Your task to perform on an android device: turn on javascript in the chrome app Image 0: 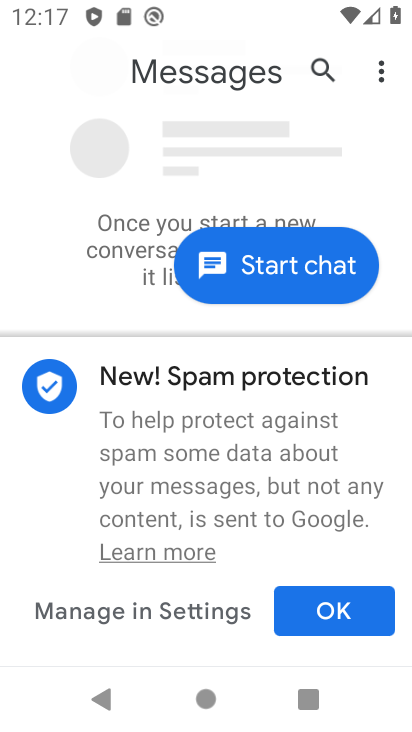
Step 0: press home button
Your task to perform on an android device: turn on javascript in the chrome app Image 1: 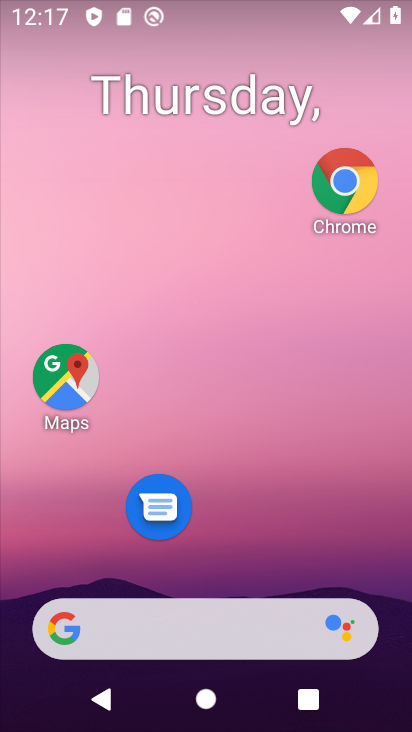
Step 1: click (359, 193)
Your task to perform on an android device: turn on javascript in the chrome app Image 2: 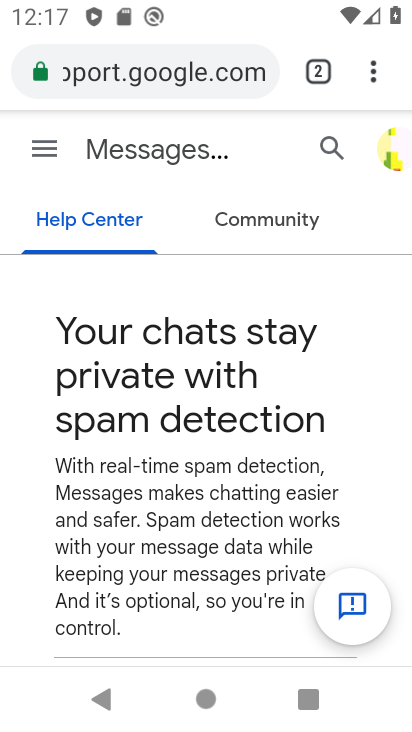
Step 2: click (364, 79)
Your task to perform on an android device: turn on javascript in the chrome app Image 3: 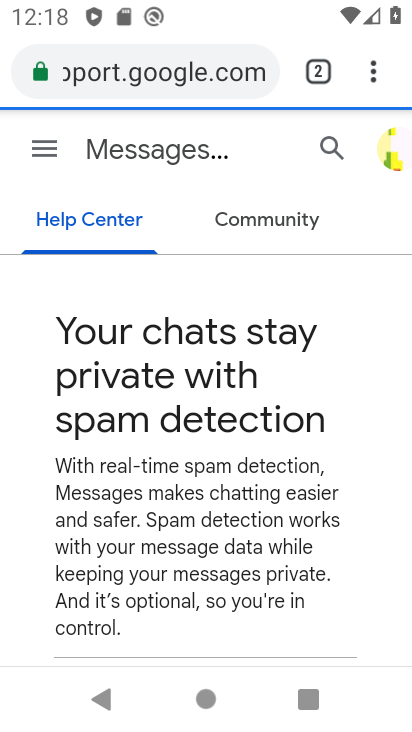
Step 3: click (379, 85)
Your task to perform on an android device: turn on javascript in the chrome app Image 4: 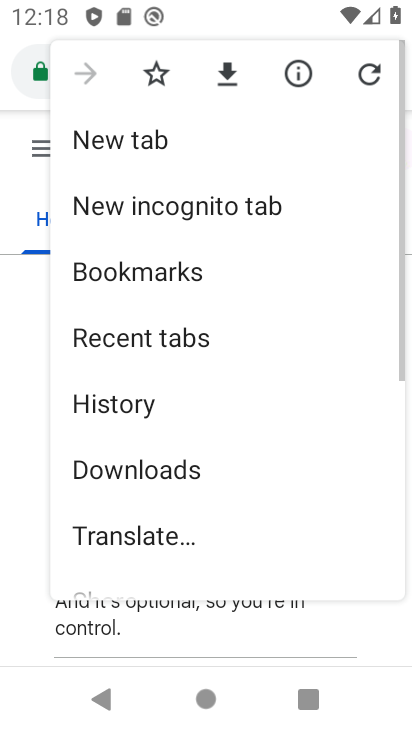
Step 4: drag from (223, 472) to (256, 106)
Your task to perform on an android device: turn on javascript in the chrome app Image 5: 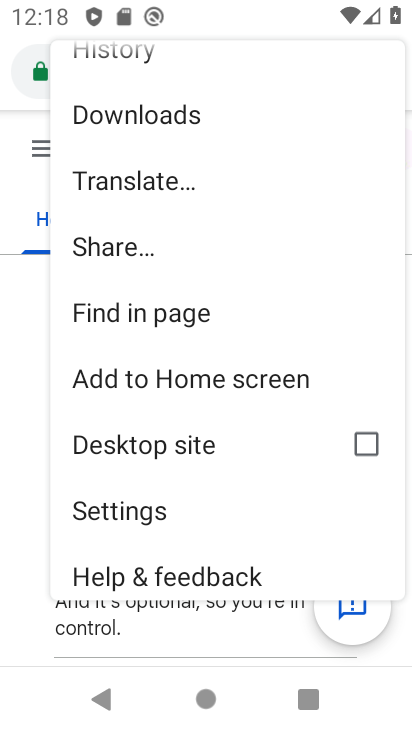
Step 5: click (118, 504)
Your task to perform on an android device: turn on javascript in the chrome app Image 6: 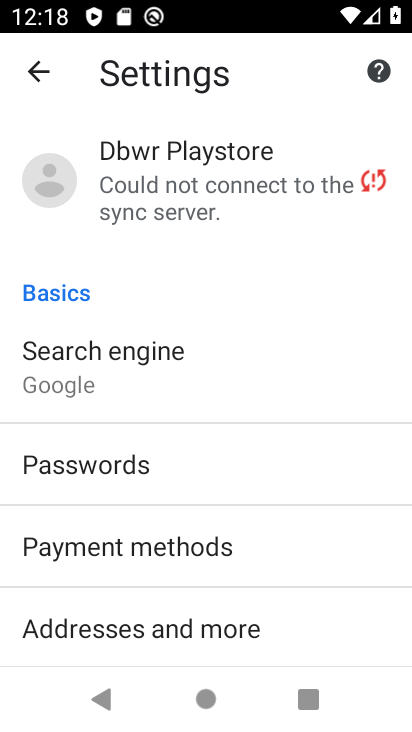
Step 6: drag from (221, 493) to (200, 190)
Your task to perform on an android device: turn on javascript in the chrome app Image 7: 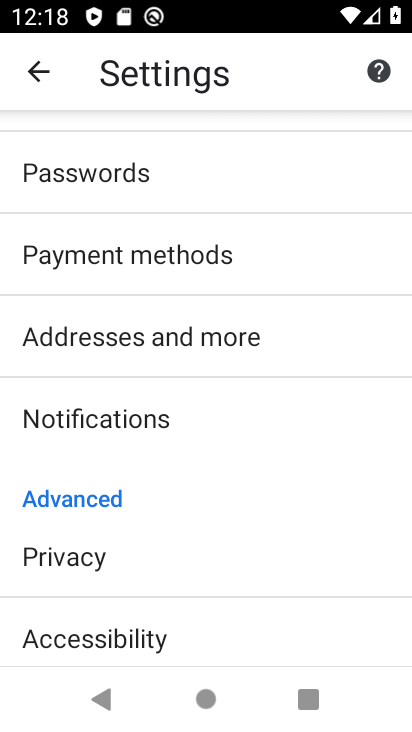
Step 7: drag from (147, 607) to (197, 345)
Your task to perform on an android device: turn on javascript in the chrome app Image 8: 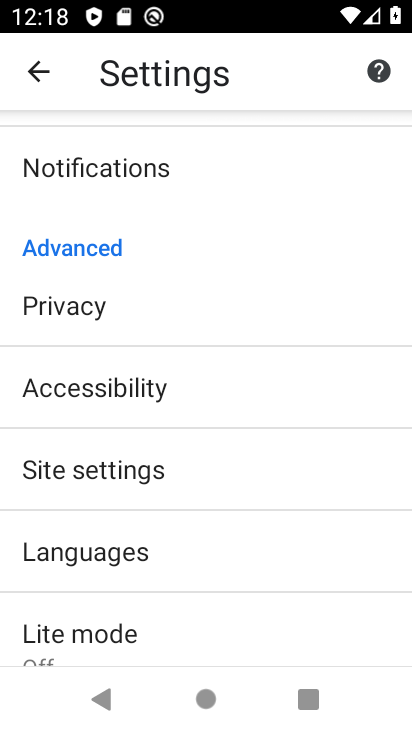
Step 8: click (149, 477)
Your task to perform on an android device: turn on javascript in the chrome app Image 9: 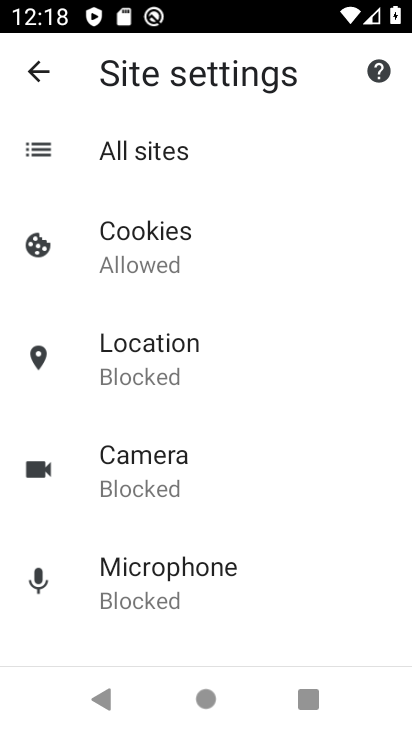
Step 9: drag from (143, 542) to (246, 148)
Your task to perform on an android device: turn on javascript in the chrome app Image 10: 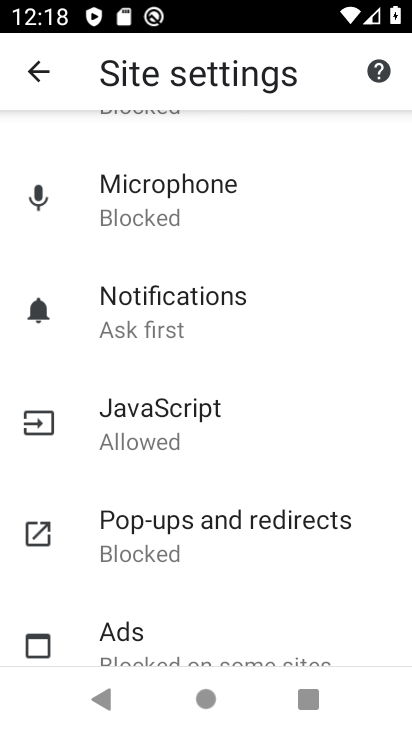
Step 10: click (214, 437)
Your task to perform on an android device: turn on javascript in the chrome app Image 11: 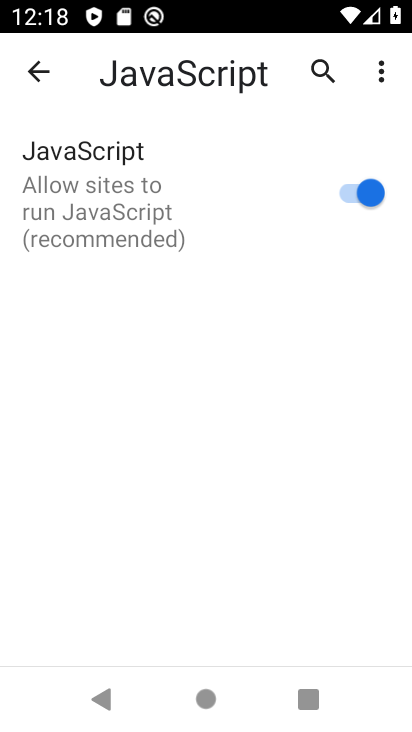
Step 11: task complete